Your task to perform on an android device: Open Google Image 0: 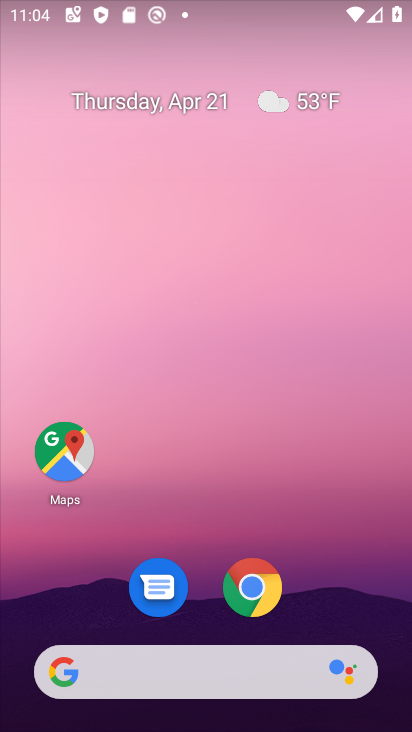
Step 0: drag from (189, 441) to (244, 72)
Your task to perform on an android device: Open Google Image 1: 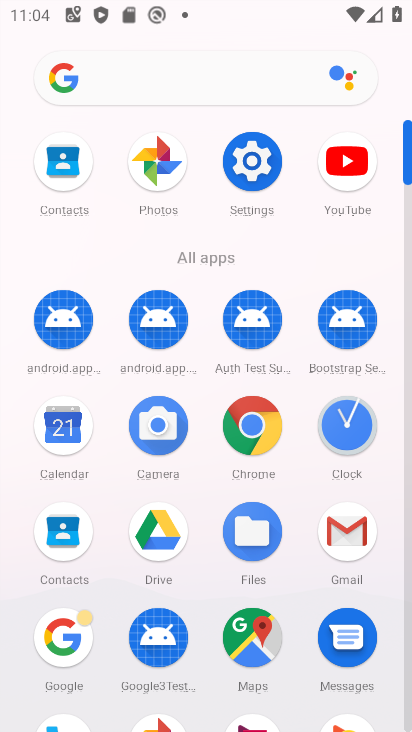
Step 1: click (73, 634)
Your task to perform on an android device: Open Google Image 2: 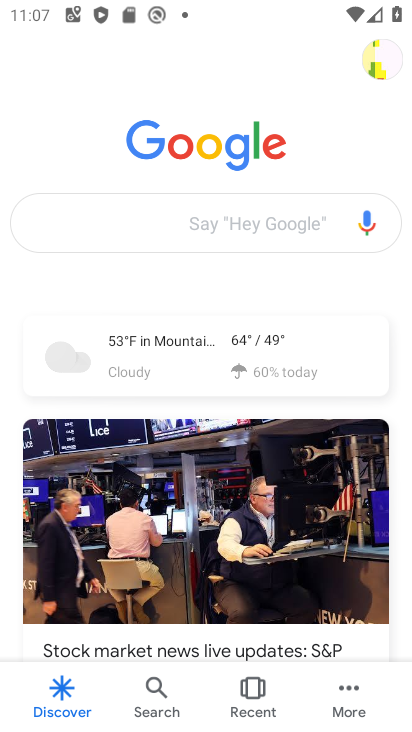
Step 2: task complete